Your task to perform on an android device: change alarm snooze length Image 0: 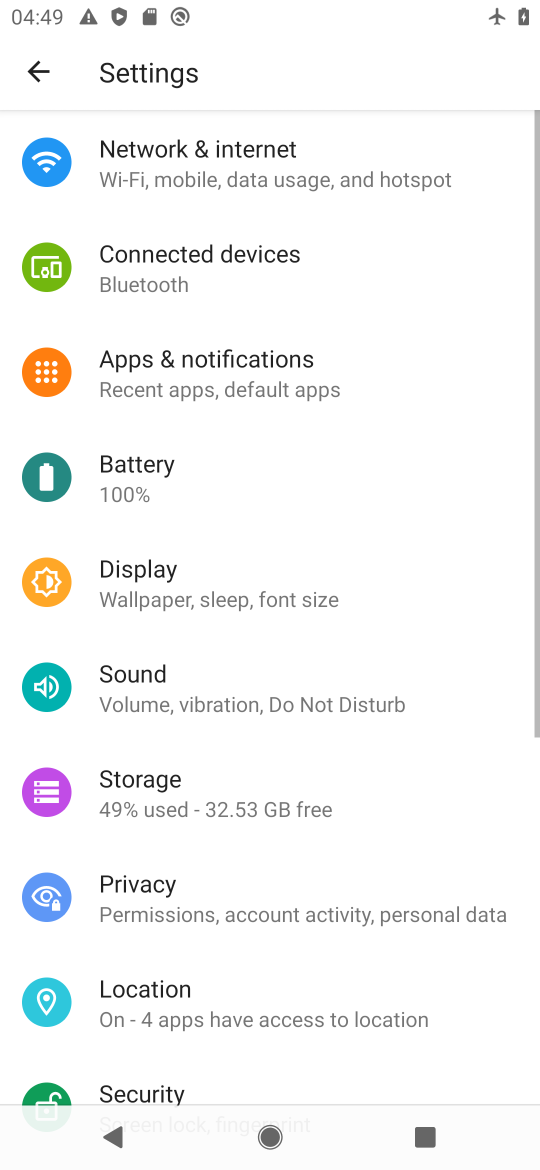
Step 0: press home button
Your task to perform on an android device: change alarm snooze length Image 1: 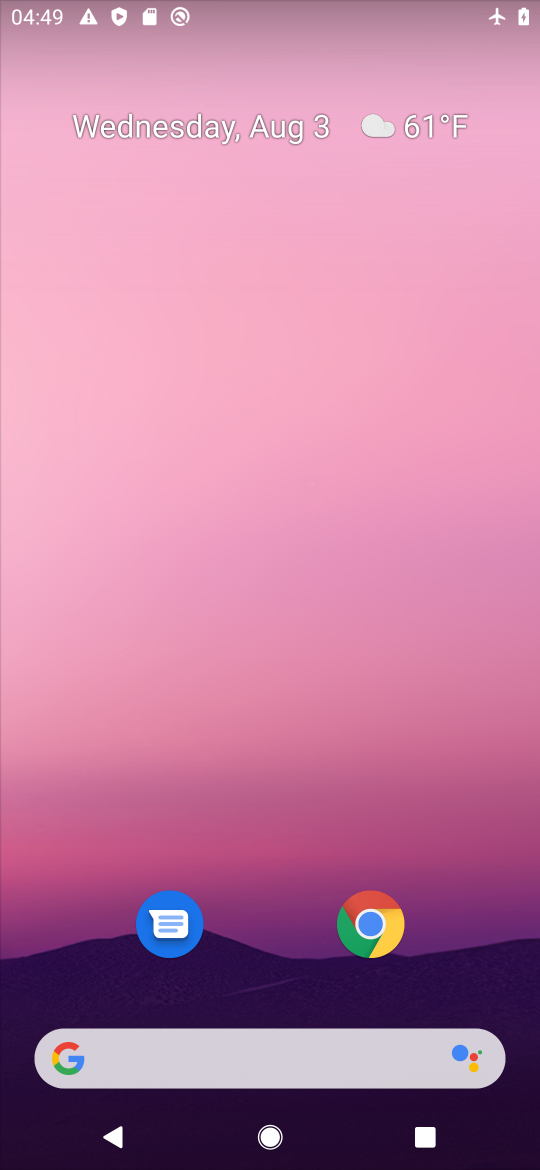
Step 1: drag from (233, 899) to (287, 395)
Your task to perform on an android device: change alarm snooze length Image 2: 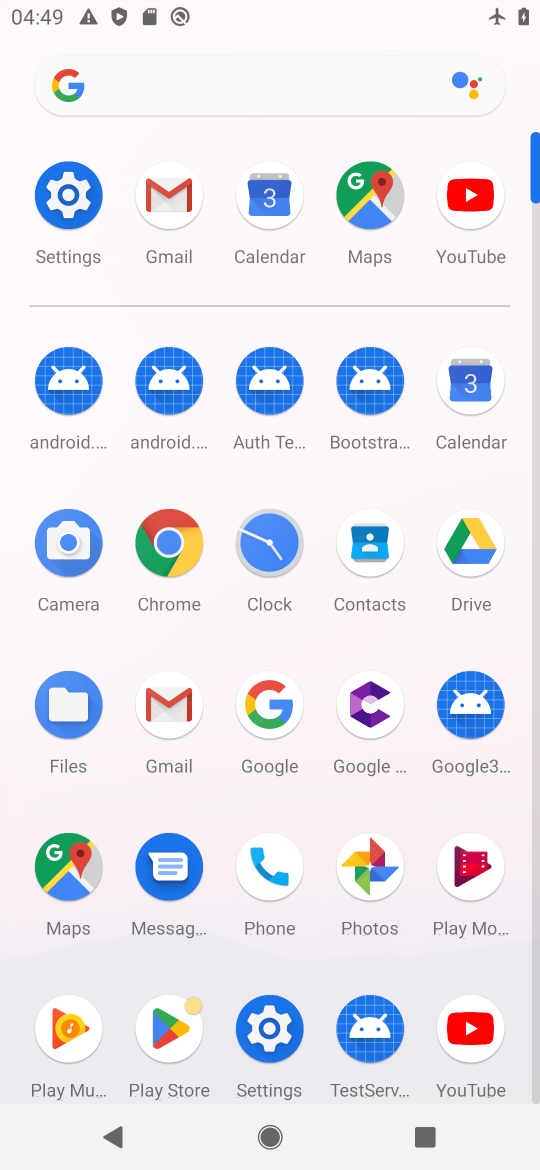
Step 2: click (285, 553)
Your task to perform on an android device: change alarm snooze length Image 3: 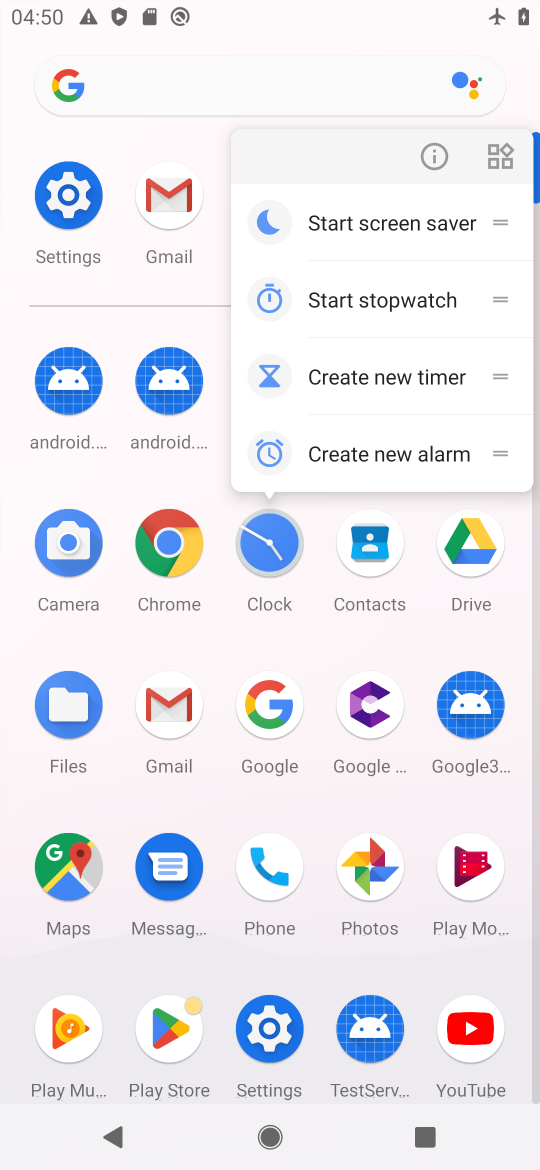
Step 3: click (285, 553)
Your task to perform on an android device: change alarm snooze length Image 4: 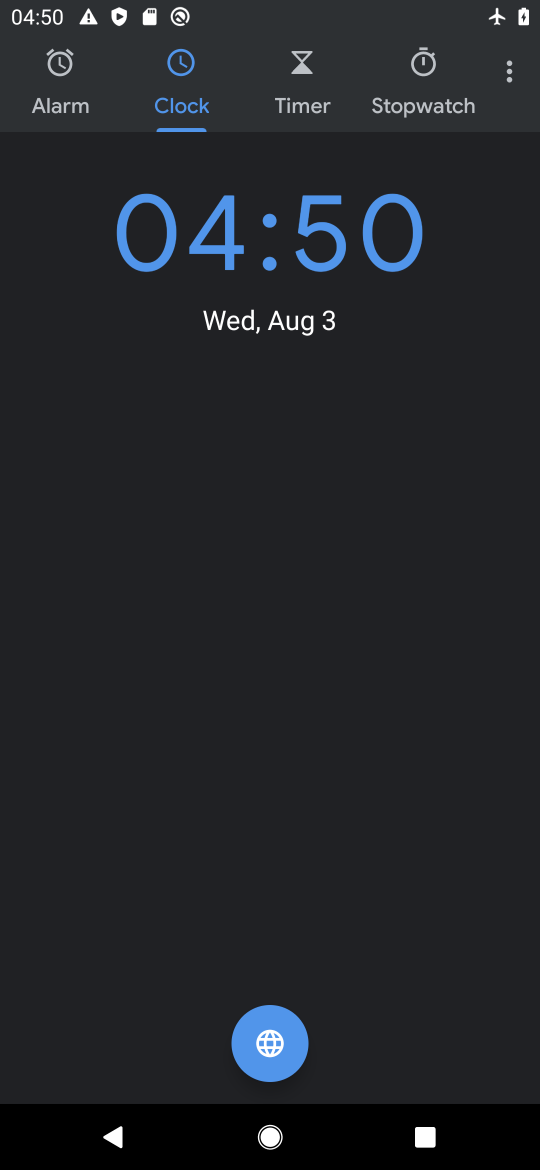
Step 4: click (506, 63)
Your task to perform on an android device: change alarm snooze length Image 5: 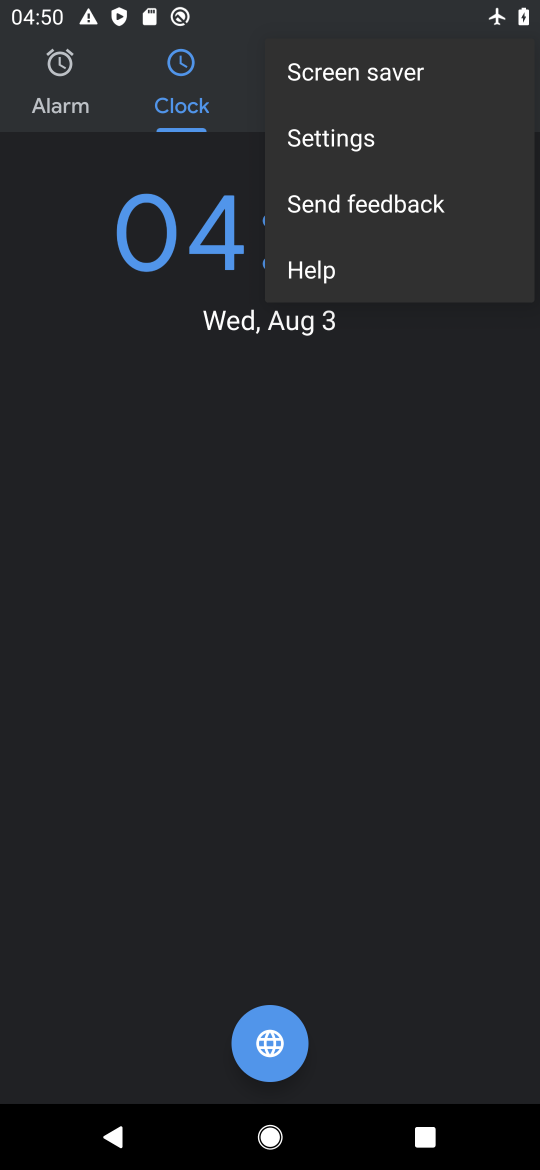
Step 5: click (391, 130)
Your task to perform on an android device: change alarm snooze length Image 6: 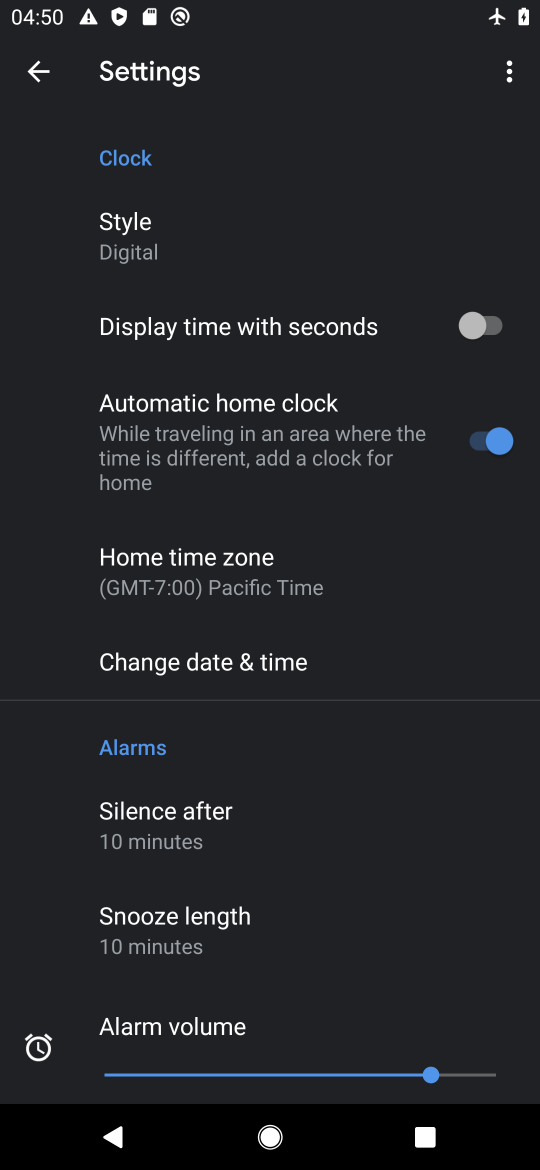
Step 6: click (232, 924)
Your task to perform on an android device: change alarm snooze length Image 7: 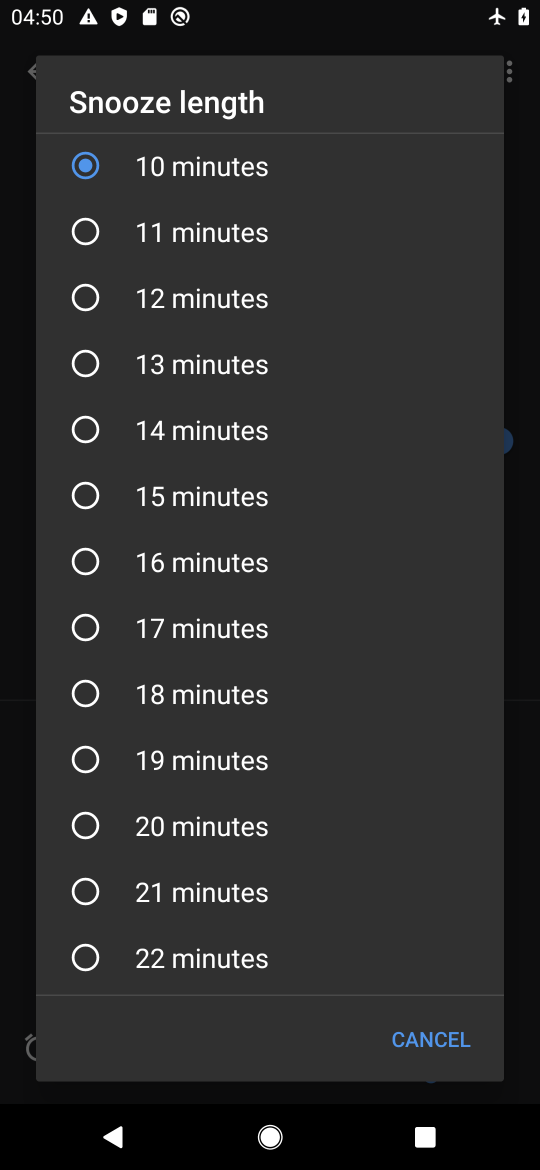
Step 7: click (119, 734)
Your task to perform on an android device: change alarm snooze length Image 8: 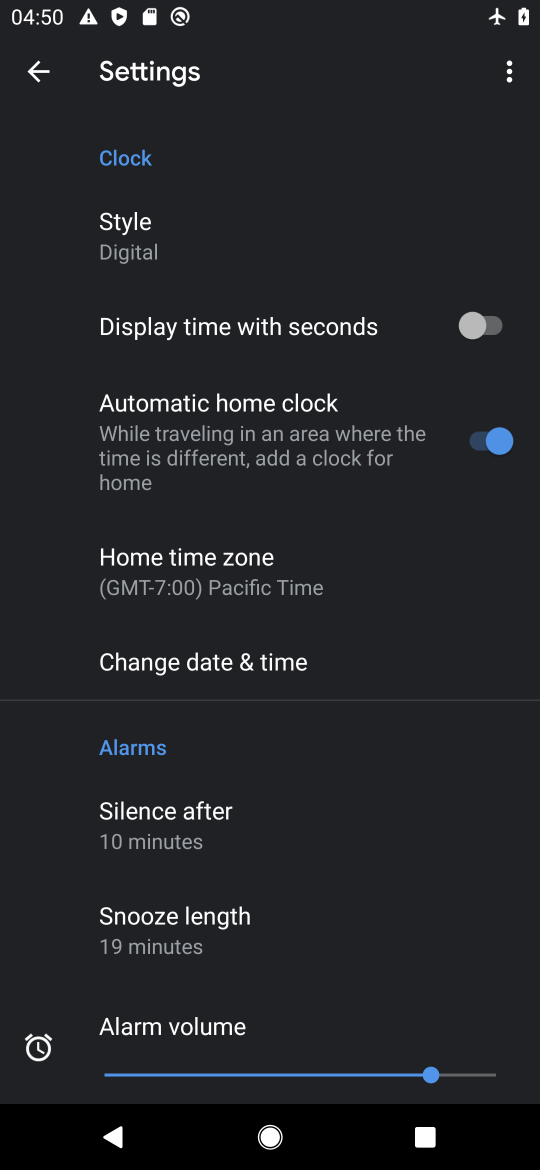
Step 8: task complete